Your task to perform on an android device: Turn on the flashlight Image 0: 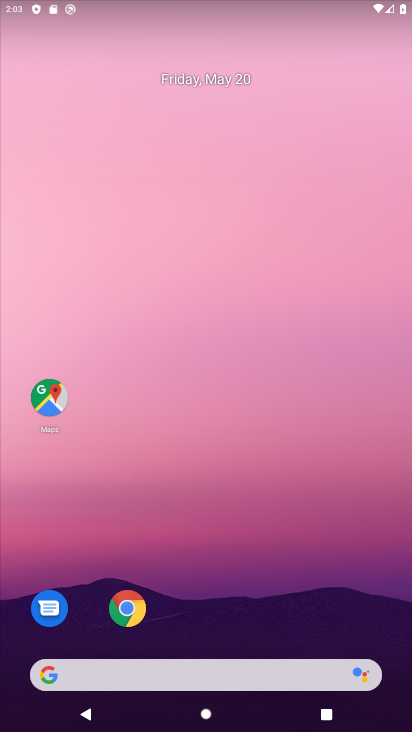
Step 0: drag from (239, 589) to (346, 26)
Your task to perform on an android device: Turn on the flashlight Image 1: 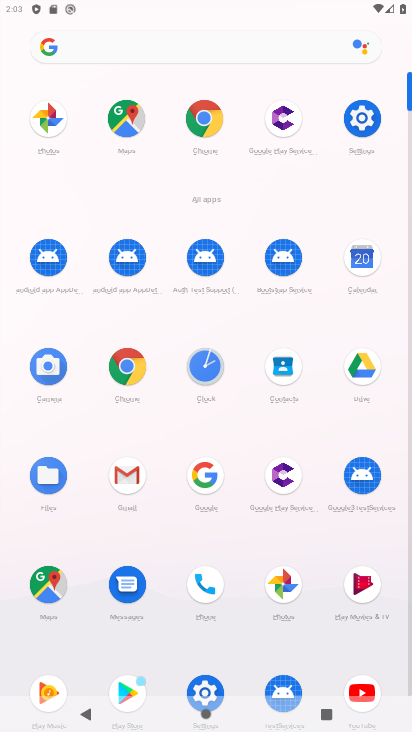
Step 1: click (370, 132)
Your task to perform on an android device: Turn on the flashlight Image 2: 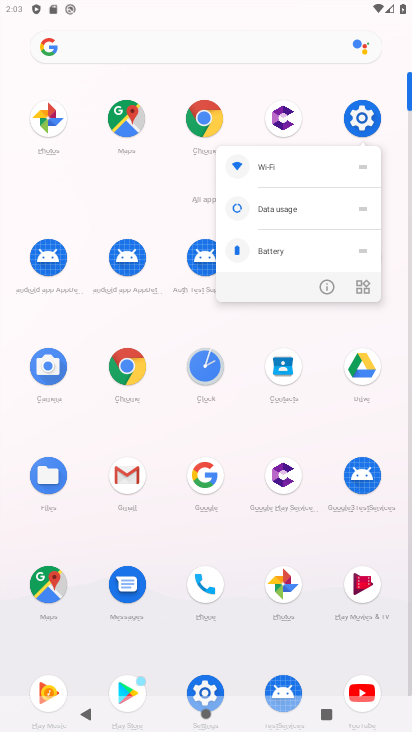
Step 2: click (360, 116)
Your task to perform on an android device: Turn on the flashlight Image 3: 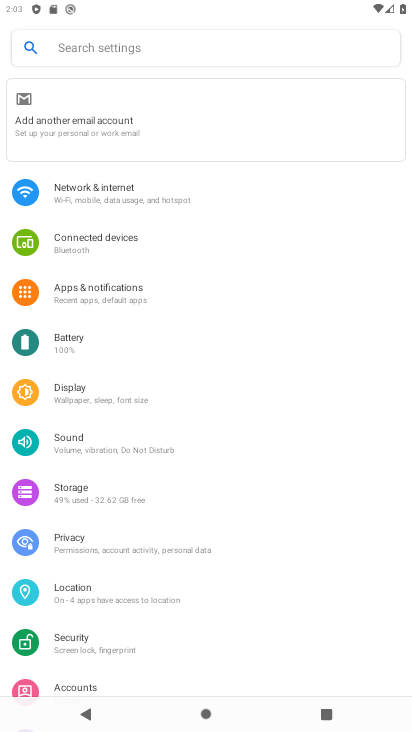
Step 3: click (84, 41)
Your task to perform on an android device: Turn on the flashlight Image 4: 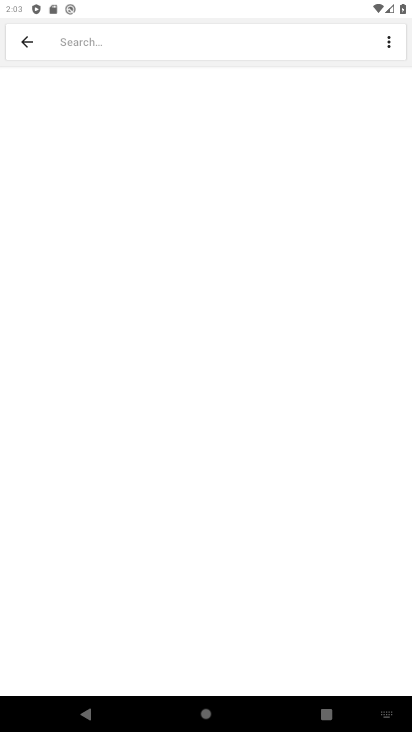
Step 4: type "flashlight"
Your task to perform on an android device: Turn on the flashlight Image 5: 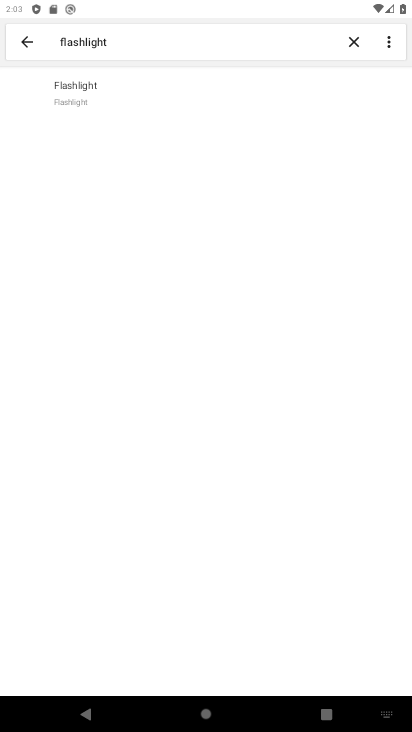
Step 5: click (125, 85)
Your task to perform on an android device: Turn on the flashlight Image 6: 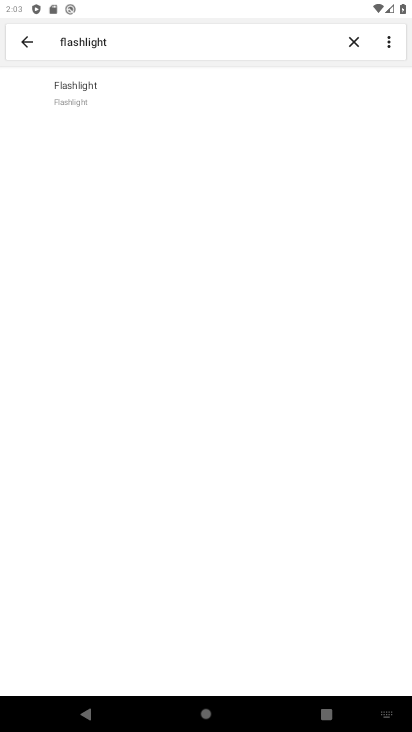
Step 6: task complete